Your task to perform on an android device: toggle data saver in the chrome app Image 0: 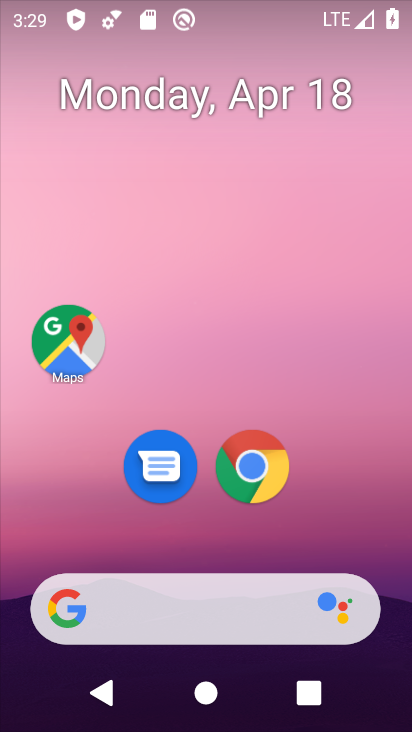
Step 0: click (279, 480)
Your task to perform on an android device: toggle data saver in the chrome app Image 1: 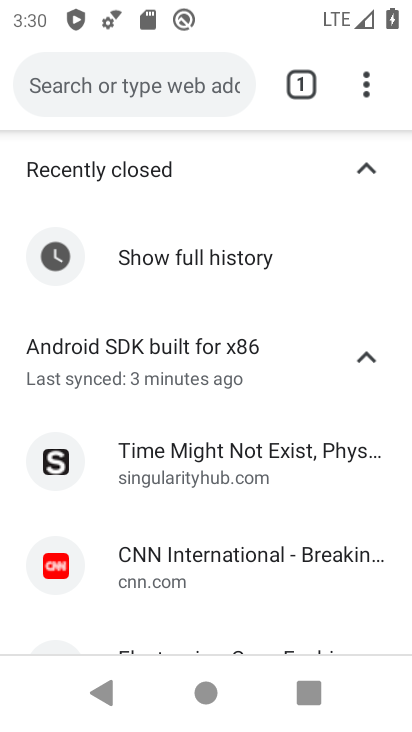
Step 1: click (377, 90)
Your task to perform on an android device: toggle data saver in the chrome app Image 2: 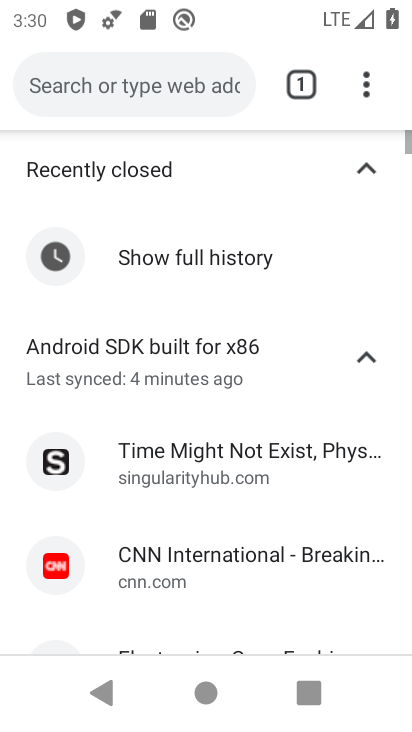
Step 2: click (377, 90)
Your task to perform on an android device: toggle data saver in the chrome app Image 3: 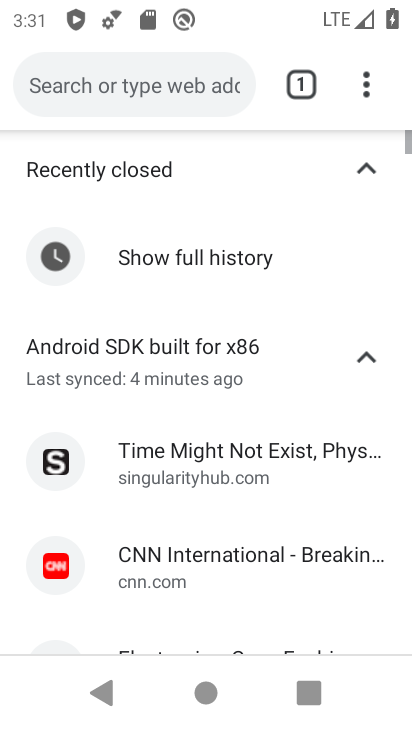
Step 3: click (363, 88)
Your task to perform on an android device: toggle data saver in the chrome app Image 4: 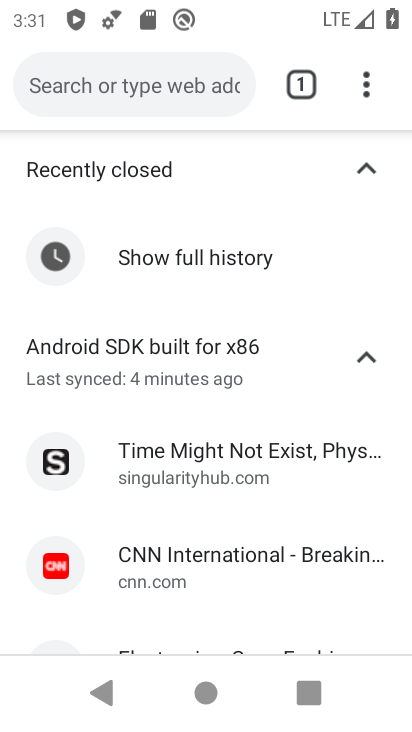
Step 4: click (375, 97)
Your task to perform on an android device: toggle data saver in the chrome app Image 5: 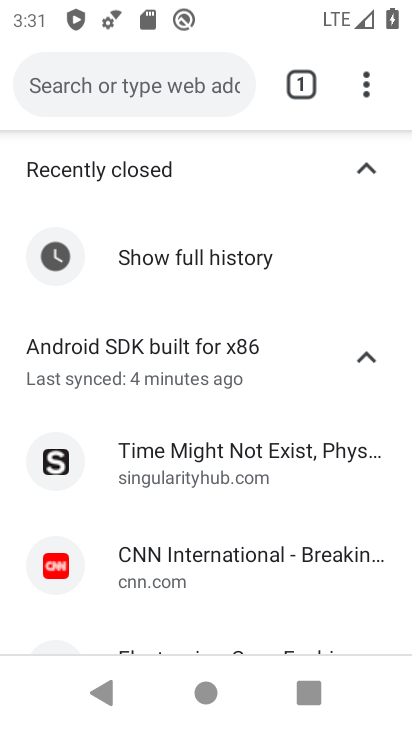
Step 5: click (363, 90)
Your task to perform on an android device: toggle data saver in the chrome app Image 6: 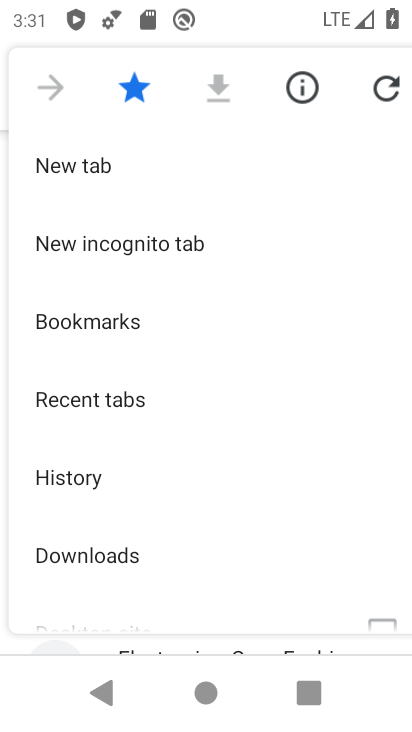
Step 6: drag from (188, 527) to (227, 272)
Your task to perform on an android device: toggle data saver in the chrome app Image 7: 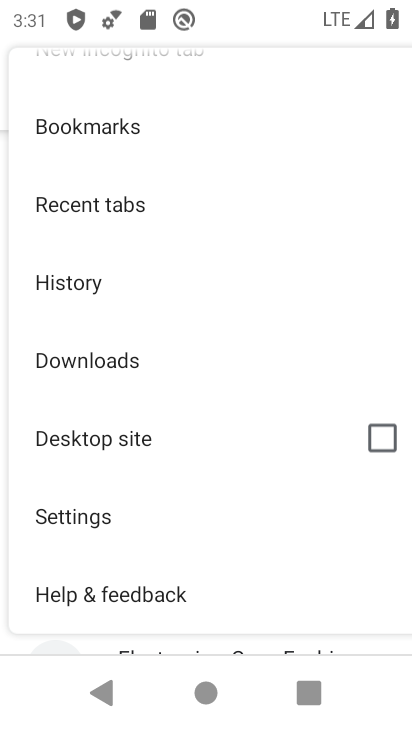
Step 7: drag from (147, 535) to (184, 368)
Your task to perform on an android device: toggle data saver in the chrome app Image 8: 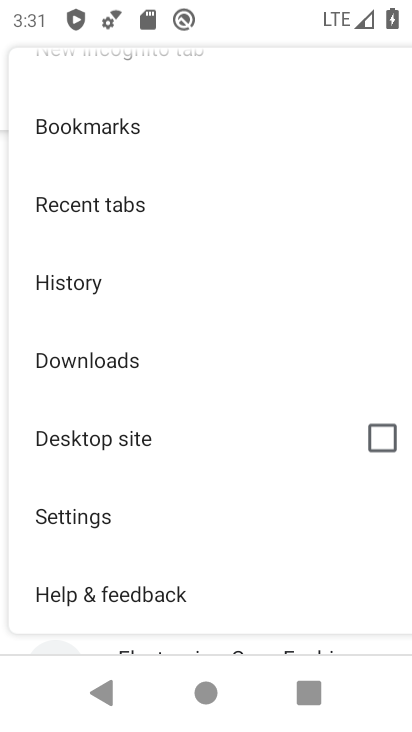
Step 8: click (146, 528)
Your task to perform on an android device: toggle data saver in the chrome app Image 9: 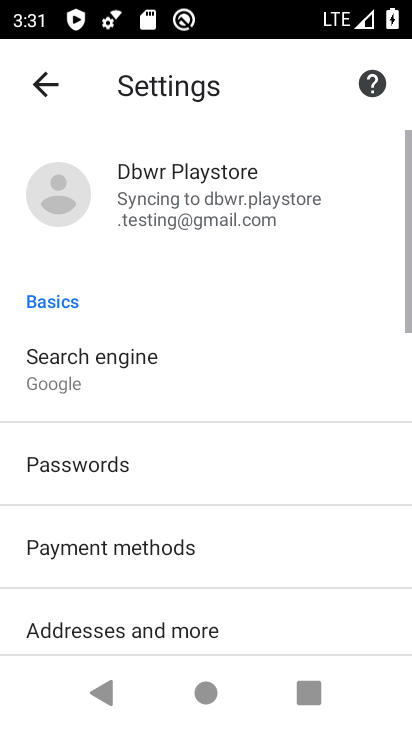
Step 9: drag from (146, 528) to (161, 251)
Your task to perform on an android device: toggle data saver in the chrome app Image 10: 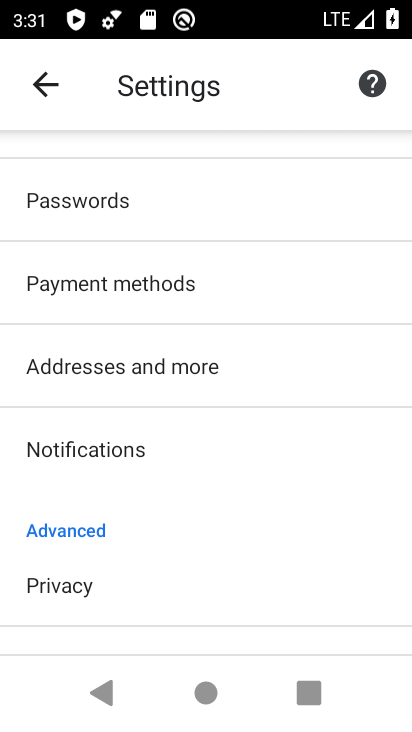
Step 10: drag from (94, 563) to (133, 284)
Your task to perform on an android device: toggle data saver in the chrome app Image 11: 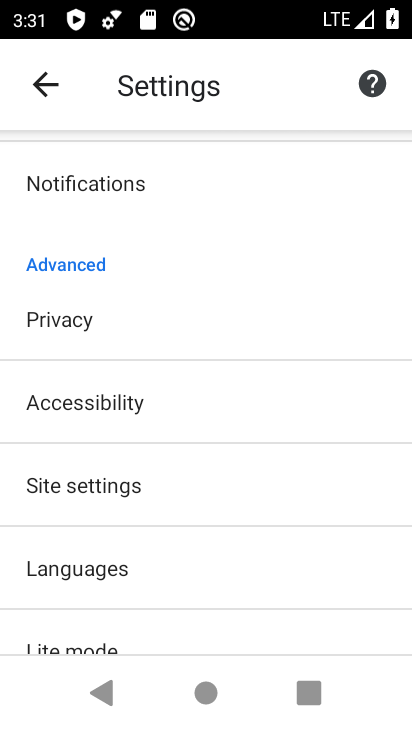
Step 11: drag from (183, 543) to (195, 345)
Your task to perform on an android device: toggle data saver in the chrome app Image 12: 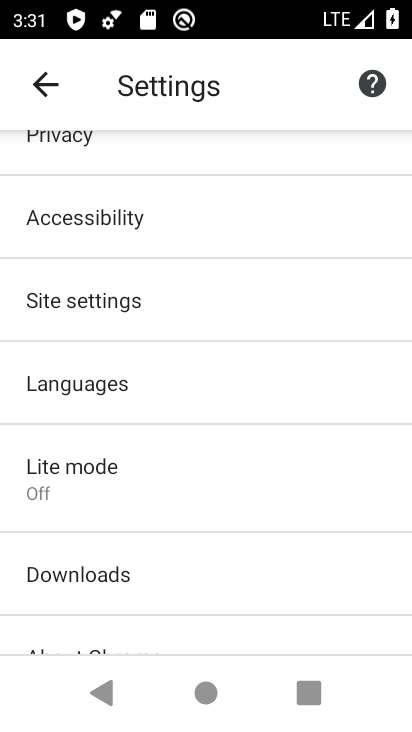
Step 12: click (125, 473)
Your task to perform on an android device: toggle data saver in the chrome app Image 13: 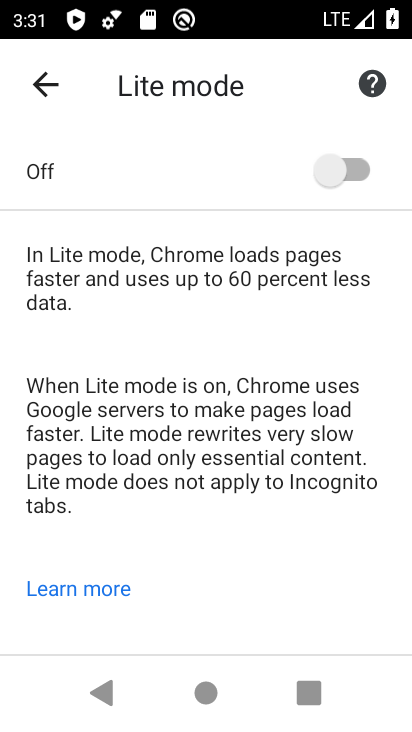
Step 13: click (346, 183)
Your task to perform on an android device: toggle data saver in the chrome app Image 14: 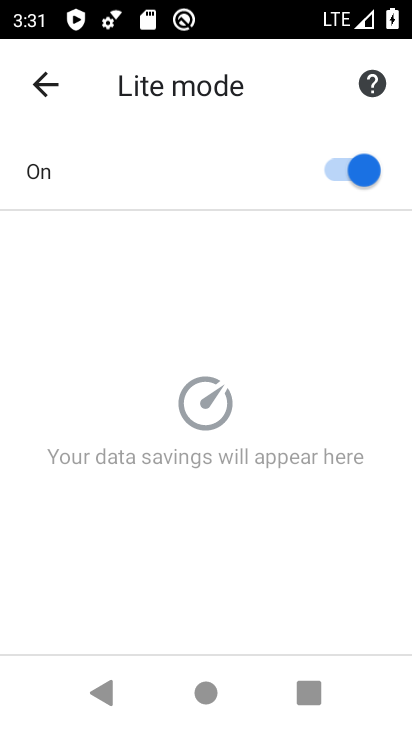
Step 14: task complete